Your task to perform on an android device: Check the weather Image 0: 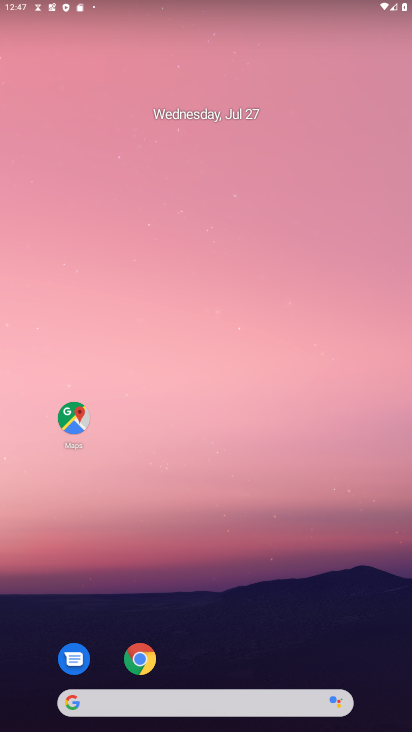
Step 0: drag from (6, 262) to (300, 307)
Your task to perform on an android device: Check the weather Image 1: 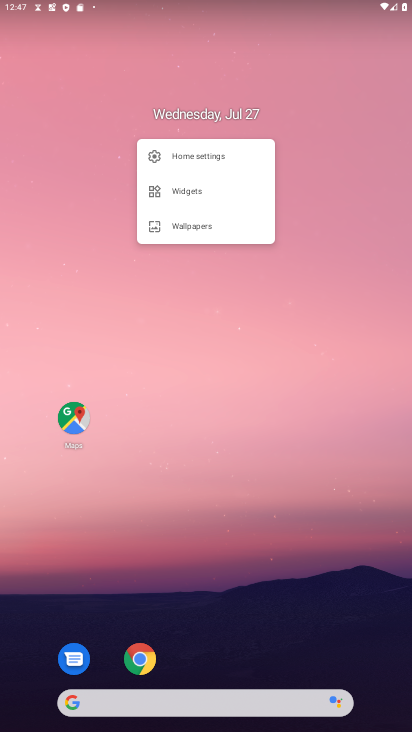
Step 1: click (225, 353)
Your task to perform on an android device: Check the weather Image 2: 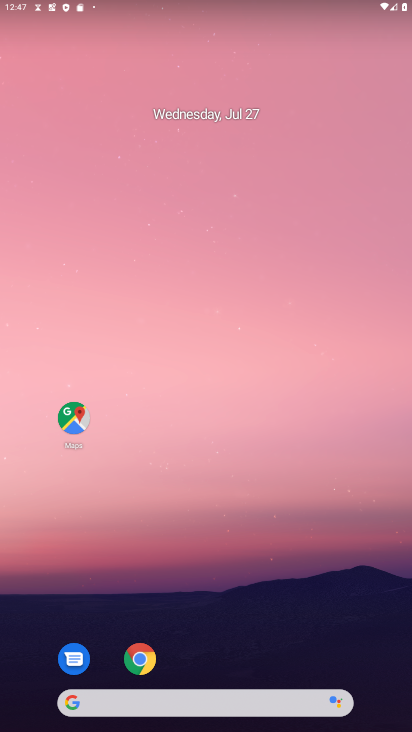
Step 2: drag from (5, 322) to (409, 338)
Your task to perform on an android device: Check the weather Image 3: 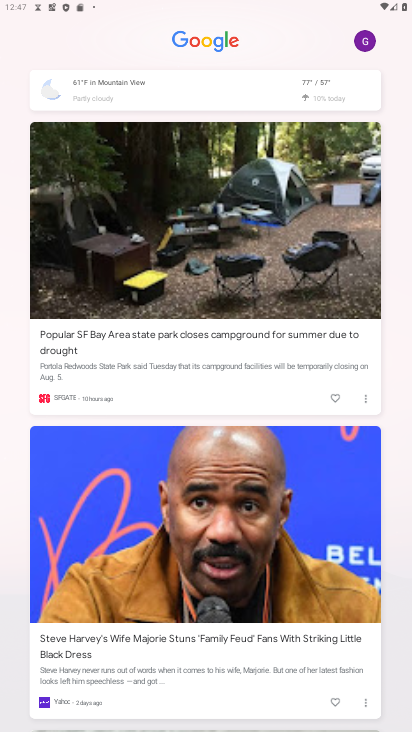
Step 3: click (305, 86)
Your task to perform on an android device: Check the weather Image 4: 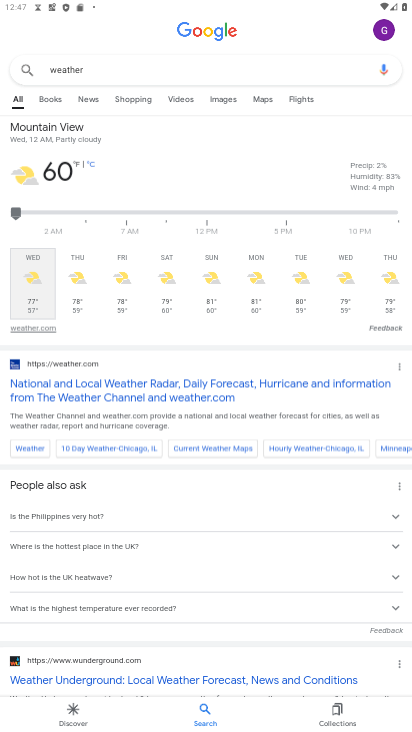
Step 4: click (172, 278)
Your task to perform on an android device: Check the weather Image 5: 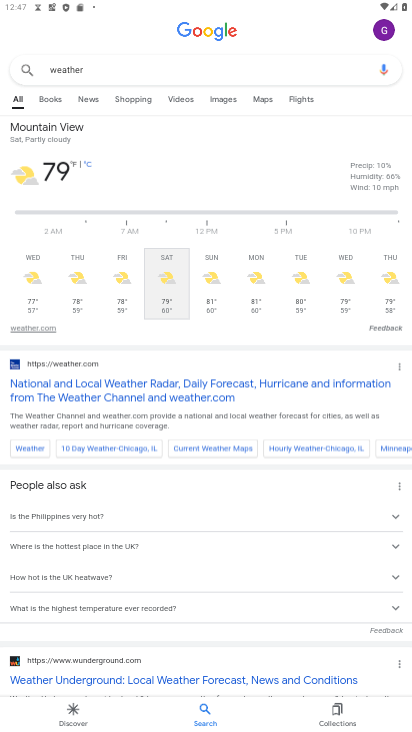
Step 5: task complete